Your task to perform on an android device: turn pop-ups on in chrome Image 0: 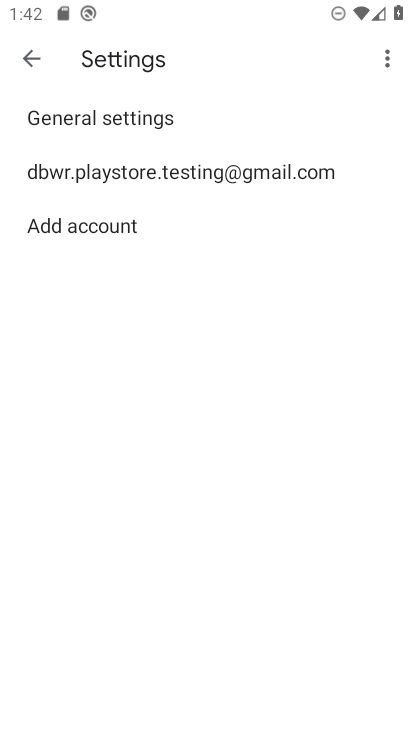
Step 0: press home button
Your task to perform on an android device: turn pop-ups on in chrome Image 1: 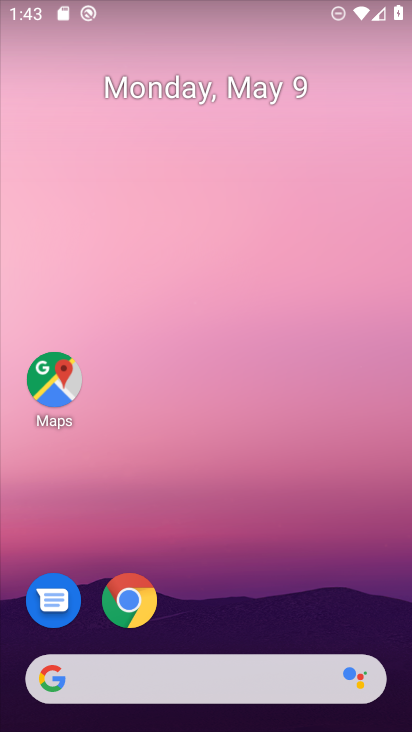
Step 1: click (134, 608)
Your task to perform on an android device: turn pop-ups on in chrome Image 2: 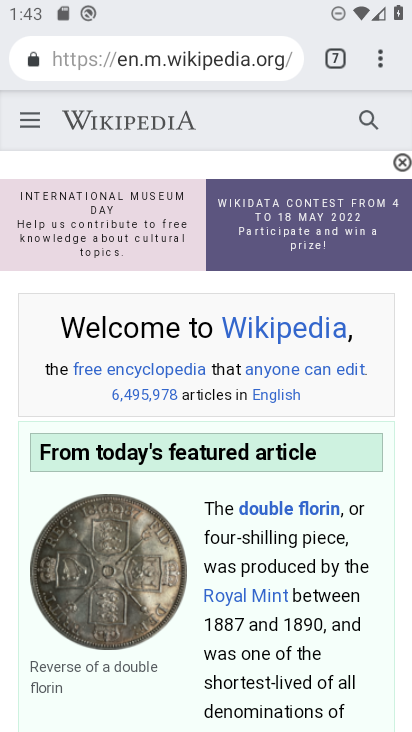
Step 2: drag from (378, 55) to (225, 631)
Your task to perform on an android device: turn pop-ups on in chrome Image 3: 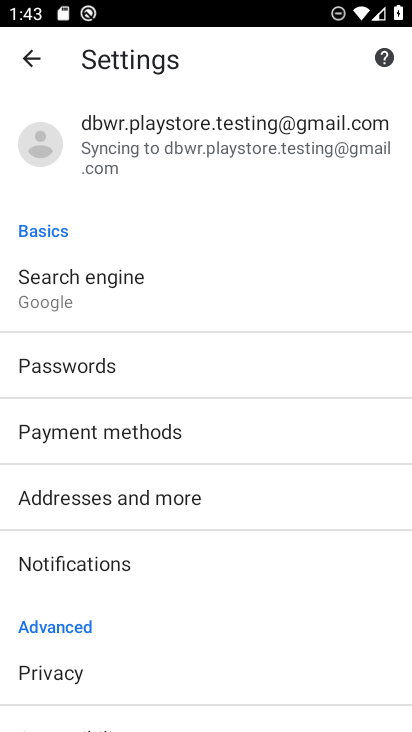
Step 3: drag from (147, 651) to (304, 306)
Your task to perform on an android device: turn pop-ups on in chrome Image 4: 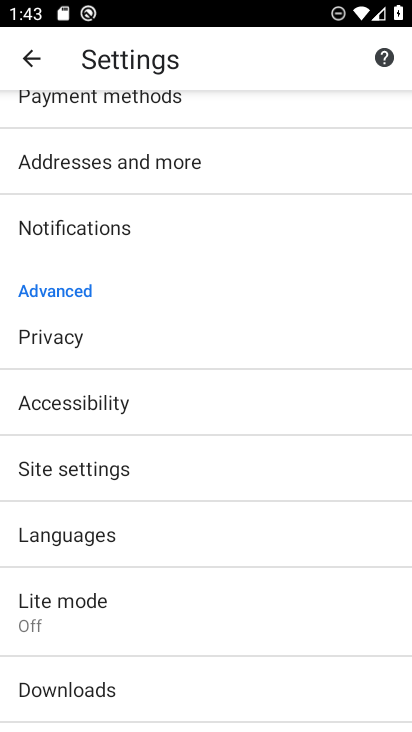
Step 4: click (116, 468)
Your task to perform on an android device: turn pop-ups on in chrome Image 5: 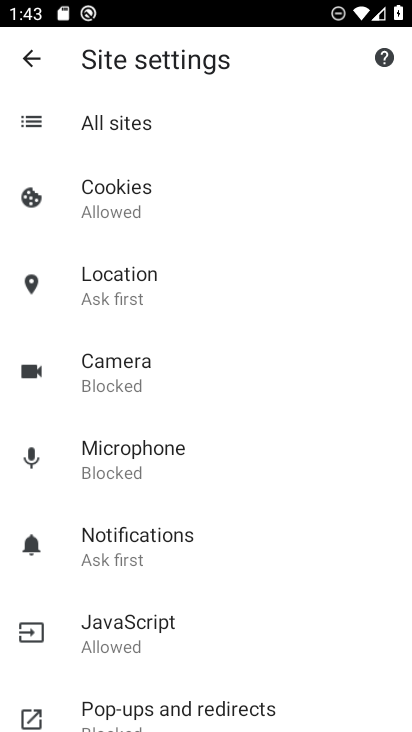
Step 5: drag from (146, 686) to (298, 344)
Your task to perform on an android device: turn pop-ups on in chrome Image 6: 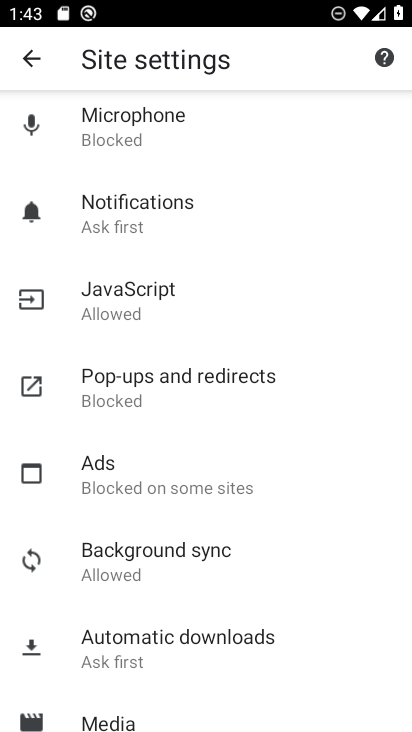
Step 6: click (192, 377)
Your task to perform on an android device: turn pop-ups on in chrome Image 7: 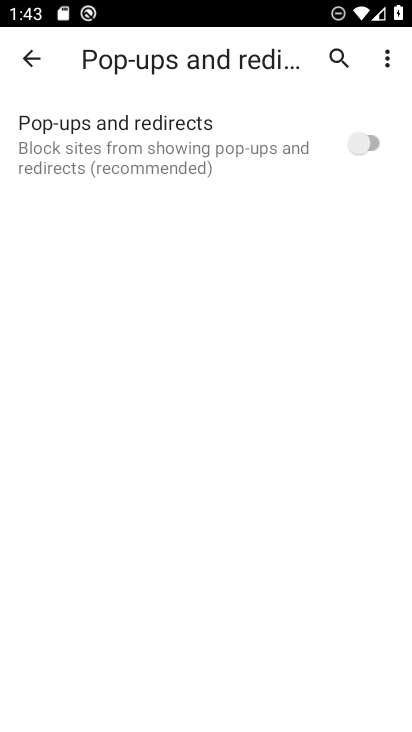
Step 7: click (372, 140)
Your task to perform on an android device: turn pop-ups on in chrome Image 8: 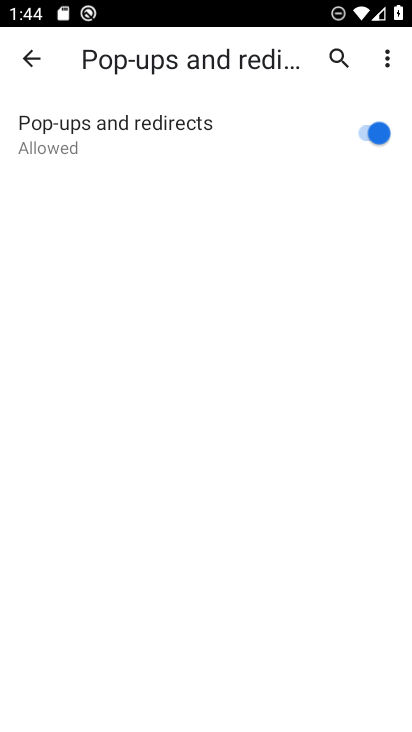
Step 8: task complete